Your task to perform on an android device: What's the weather going to be this weekend? Image 0: 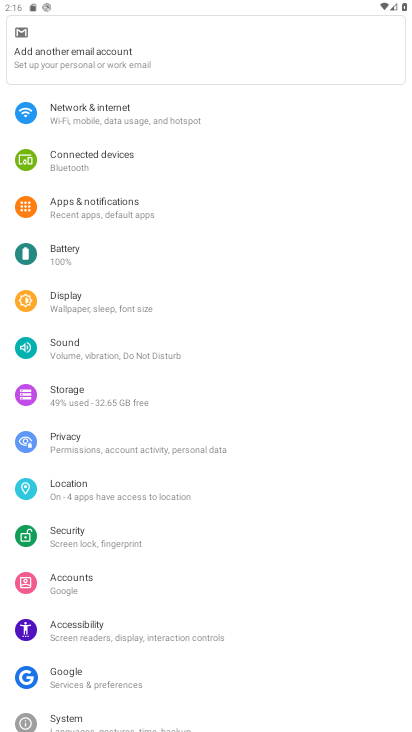
Step 0: press home button
Your task to perform on an android device: What's the weather going to be this weekend? Image 1: 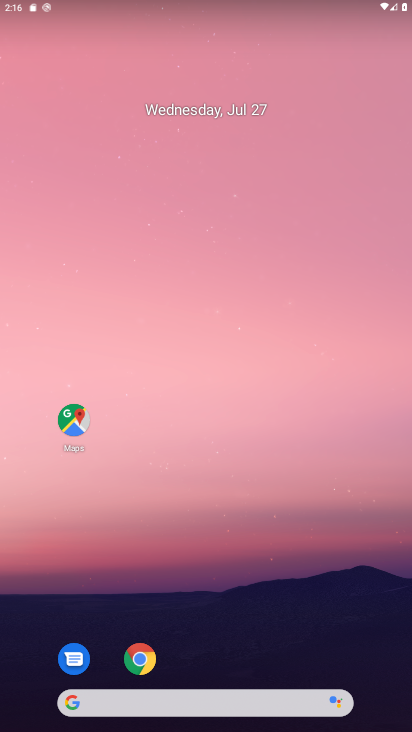
Step 1: drag from (252, 574) to (233, 170)
Your task to perform on an android device: What's the weather going to be this weekend? Image 2: 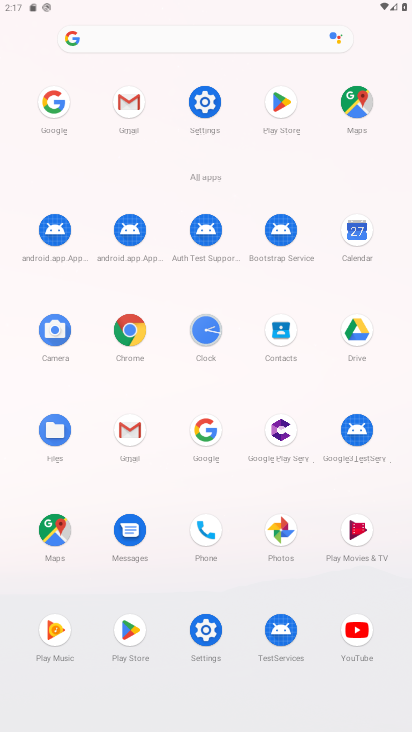
Step 2: click (47, 111)
Your task to perform on an android device: What's the weather going to be this weekend? Image 3: 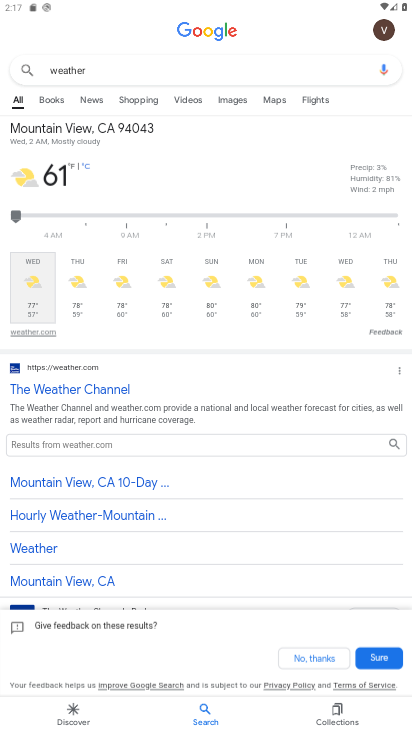
Step 3: task complete